Your task to perform on an android device: turn smart compose on in the gmail app Image 0: 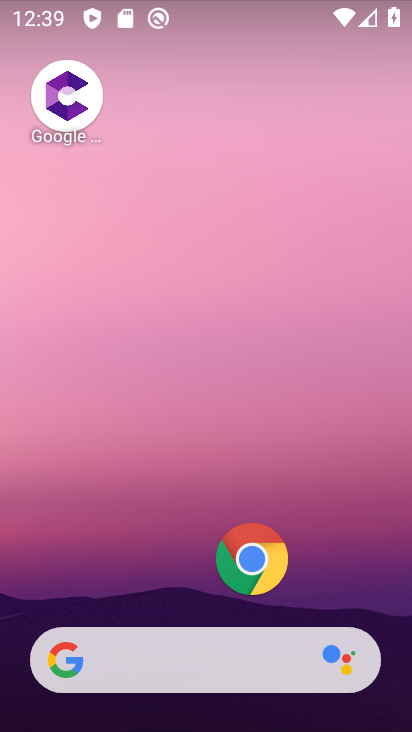
Step 0: drag from (197, 625) to (197, 310)
Your task to perform on an android device: turn smart compose on in the gmail app Image 1: 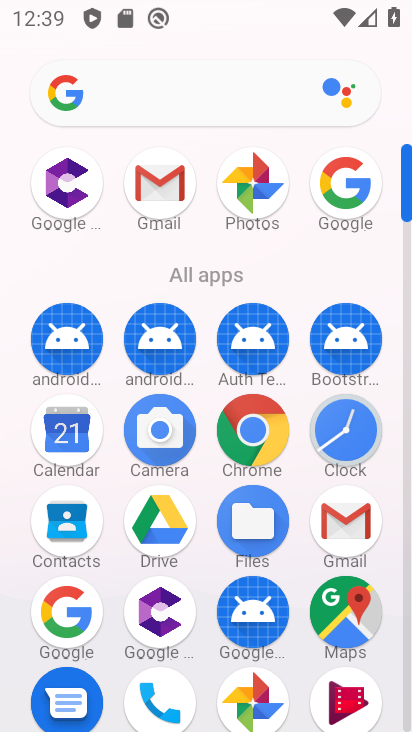
Step 1: click (147, 180)
Your task to perform on an android device: turn smart compose on in the gmail app Image 2: 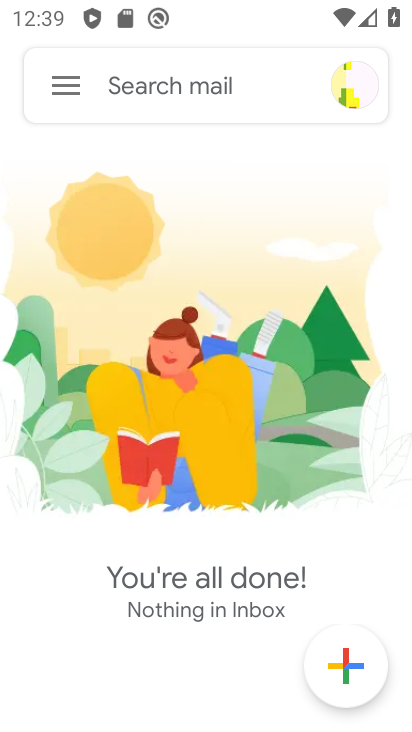
Step 2: click (70, 91)
Your task to perform on an android device: turn smart compose on in the gmail app Image 3: 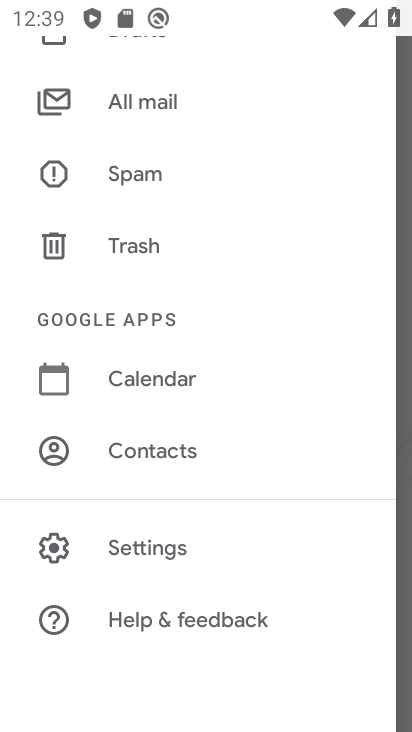
Step 3: click (116, 541)
Your task to perform on an android device: turn smart compose on in the gmail app Image 4: 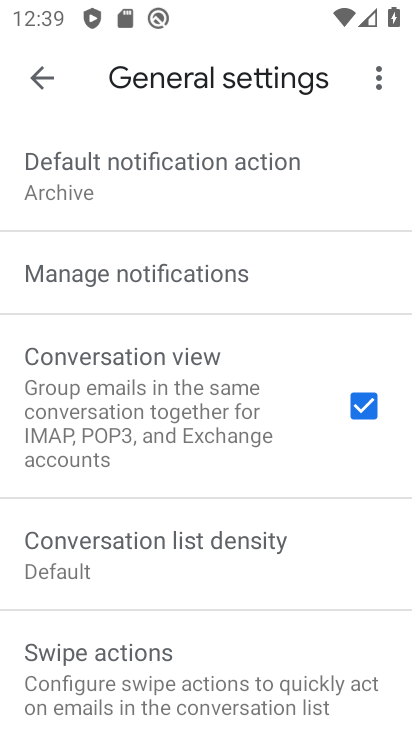
Step 4: click (39, 75)
Your task to perform on an android device: turn smart compose on in the gmail app Image 5: 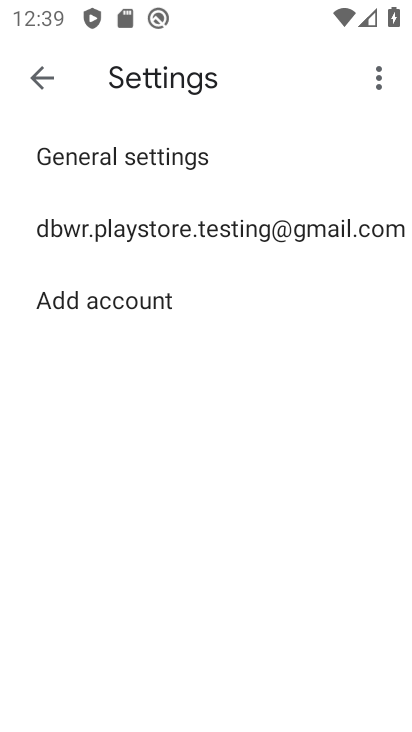
Step 5: click (181, 227)
Your task to perform on an android device: turn smart compose on in the gmail app Image 6: 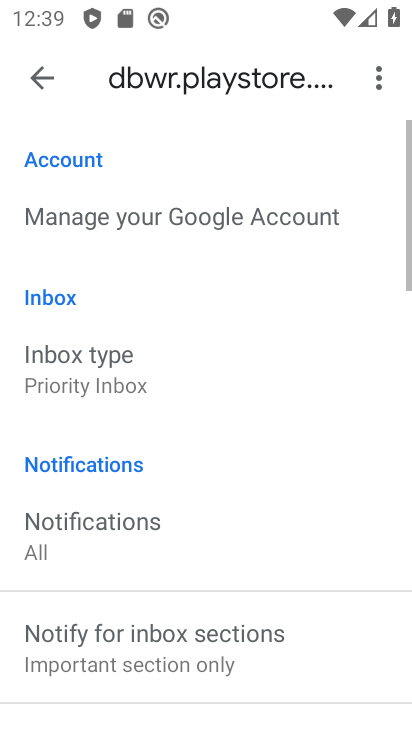
Step 6: task complete